Your task to perform on an android device: delete location history Image 0: 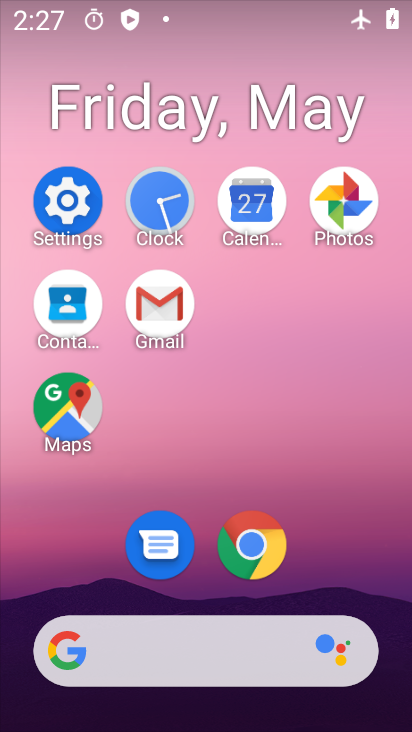
Step 0: click (77, 203)
Your task to perform on an android device: delete location history Image 1: 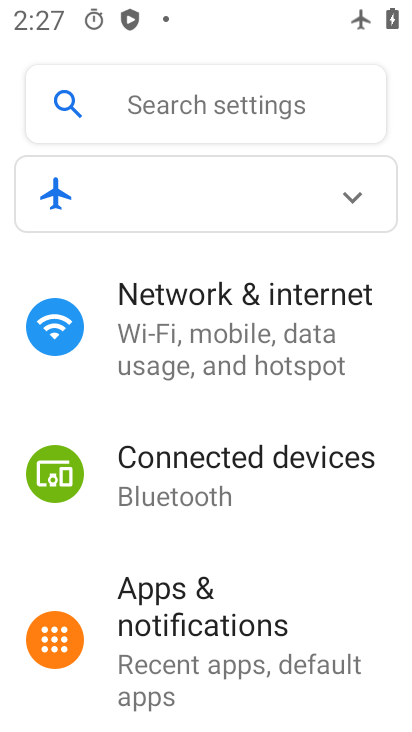
Step 1: drag from (265, 581) to (301, 118)
Your task to perform on an android device: delete location history Image 2: 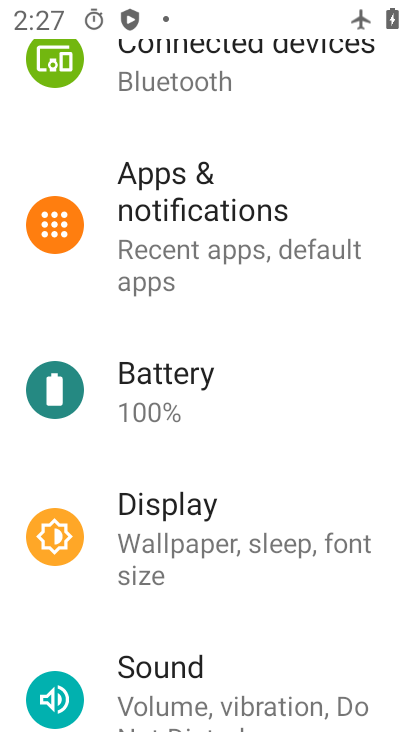
Step 2: drag from (244, 630) to (284, 188)
Your task to perform on an android device: delete location history Image 3: 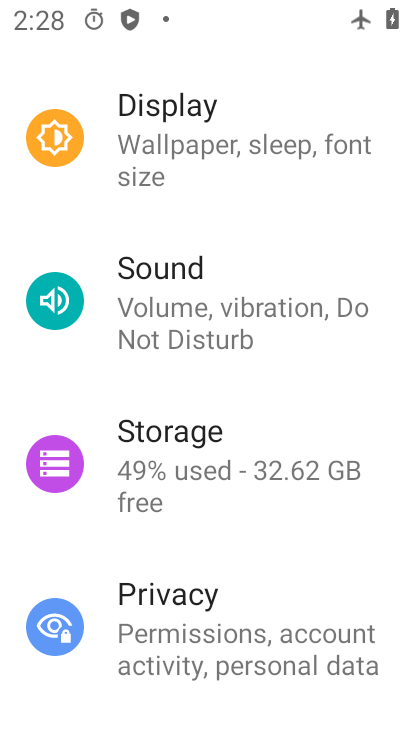
Step 3: drag from (284, 638) to (284, 244)
Your task to perform on an android device: delete location history Image 4: 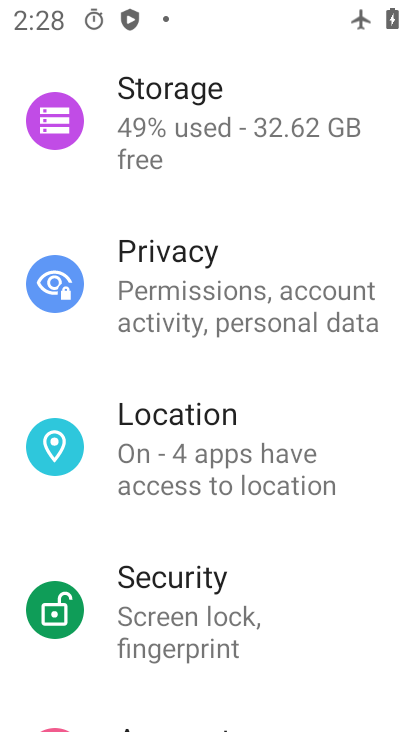
Step 4: click (216, 426)
Your task to perform on an android device: delete location history Image 5: 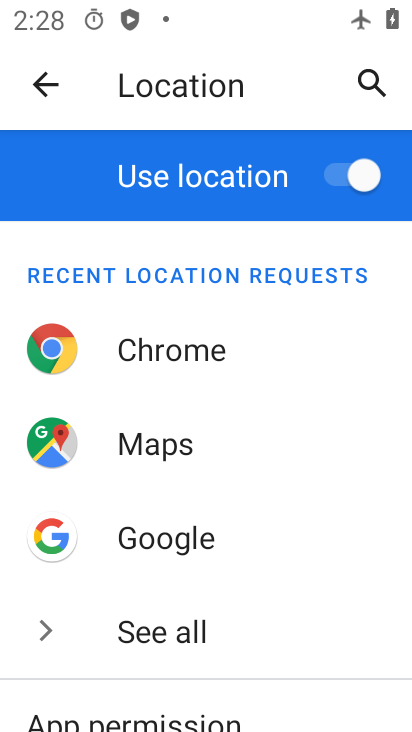
Step 5: drag from (274, 610) to (242, 125)
Your task to perform on an android device: delete location history Image 6: 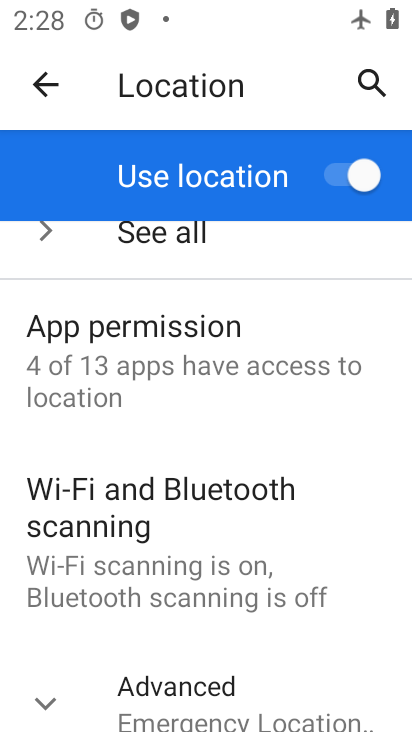
Step 6: drag from (245, 625) to (252, 288)
Your task to perform on an android device: delete location history Image 7: 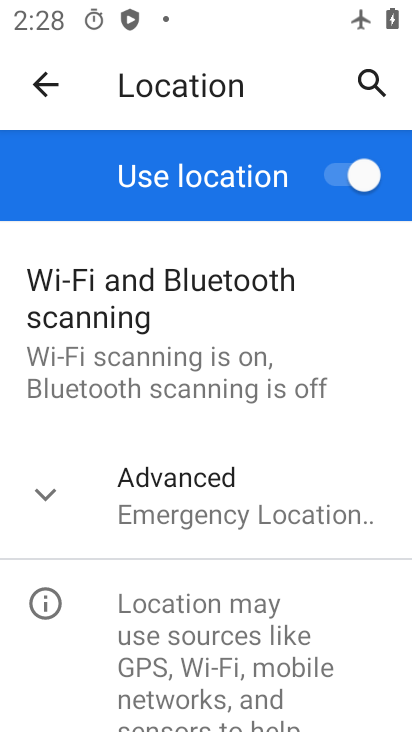
Step 7: click (227, 511)
Your task to perform on an android device: delete location history Image 8: 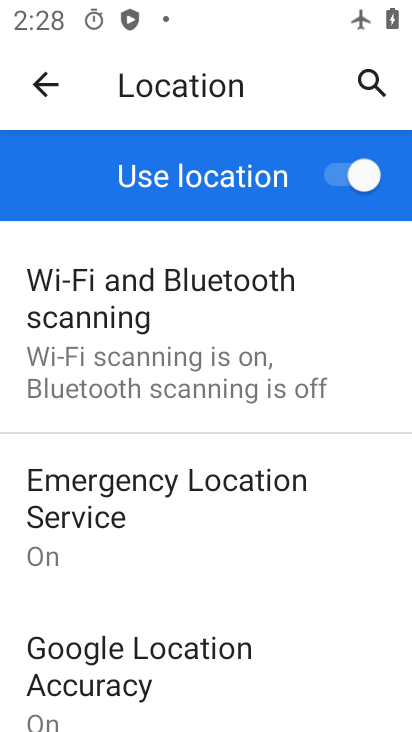
Step 8: drag from (264, 595) to (242, 309)
Your task to perform on an android device: delete location history Image 9: 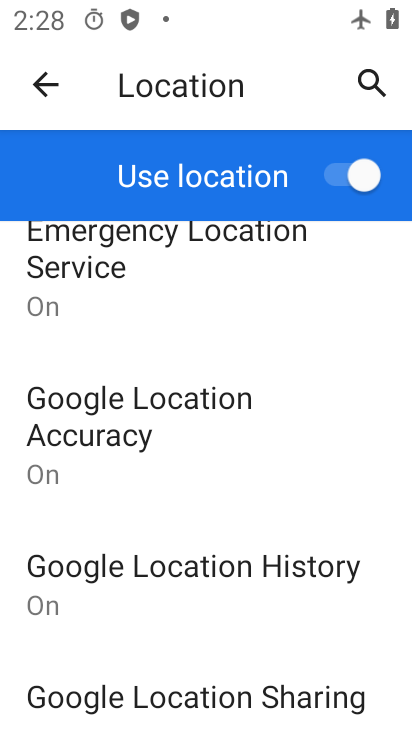
Step 9: click (299, 562)
Your task to perform on an android device: delete location history Image 10: 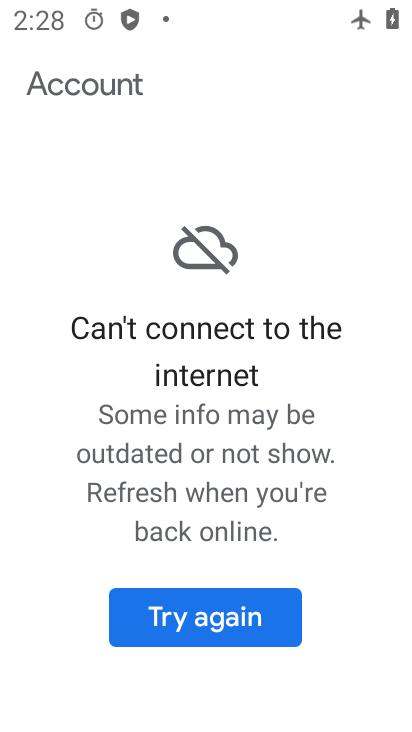
Step 10: task complete